Your task to perform on an android device: find photos in the google photos app Image 0: 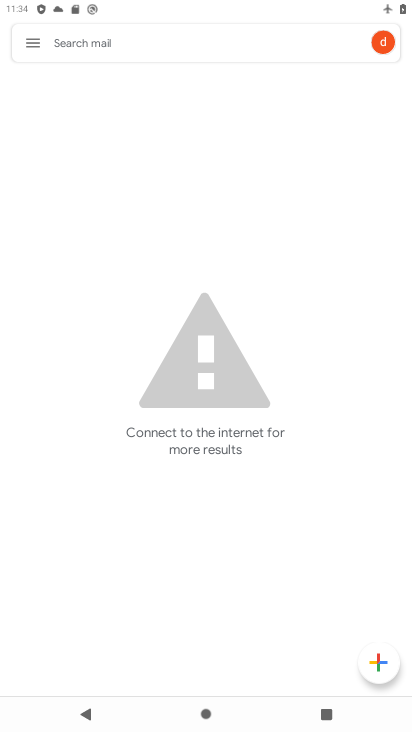
Step 0: press home button
Your task to perform on an android device: find photos in the google photos app Image 1: 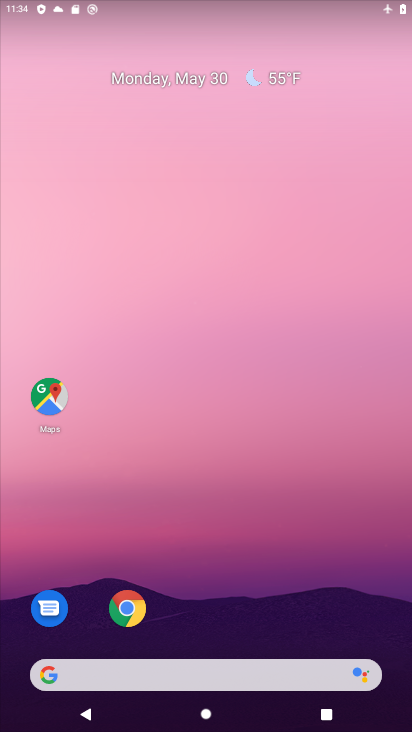
Step 1: drag from (314, 518) to (325, 3)
Your task to perform on an android device: find photos in the google photos app Image 2: 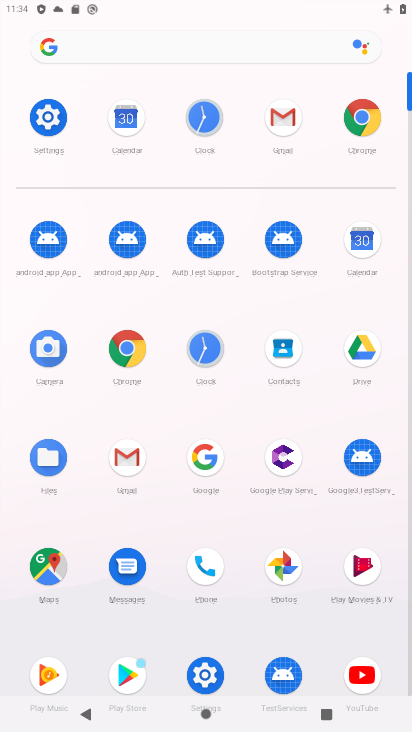
Step 2: click (275, 572)
Your task to perform on an android device: find photos in the google photos app Image 3: 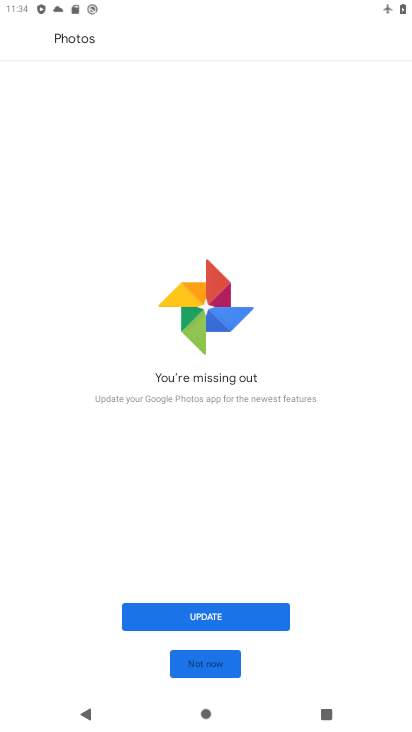
Step 3: click (203, 653)
Your task to perform on an android device: find photos in the google photos app Image 4: 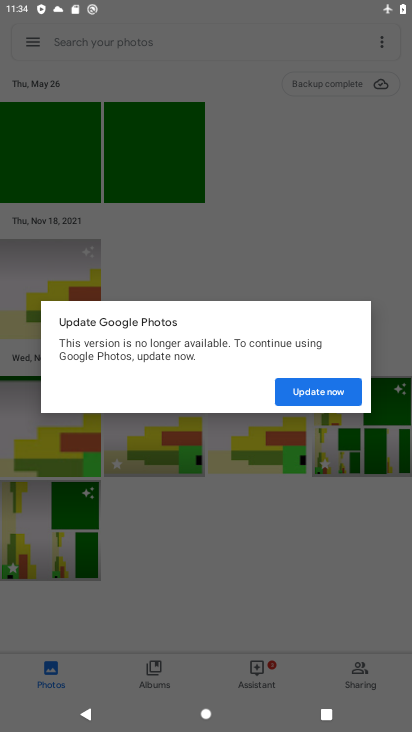
Step 4: click (300, 397)
Your task to perform on an android device: find photos in the google photos app Image 5: 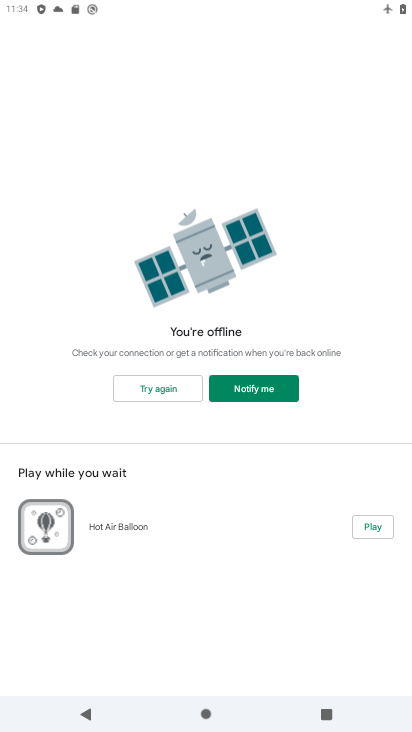
Step 5: press back button
Your task to perform on an android device: find photos in the google photos app Image 6: 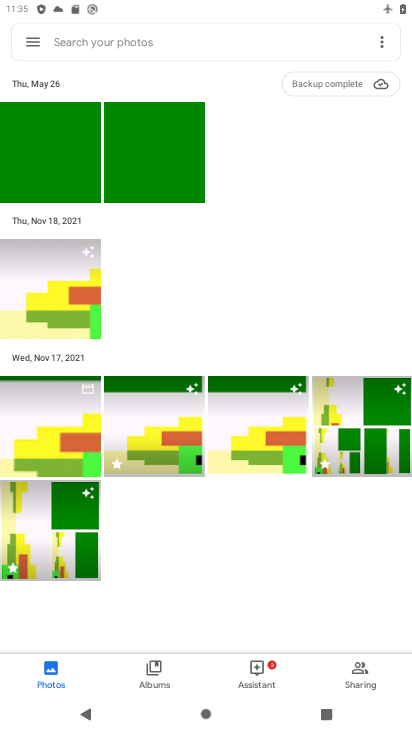
Step 6: click (49, 673)
Your task to perform on an android device: find photos in the google photos app Image 7: 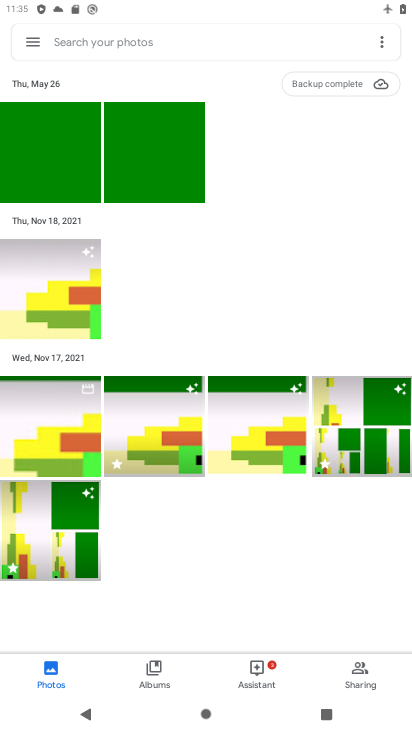
Step 7: click (49, 673)
Your task to perform on an android device: find photos in the google photos app Image 8: 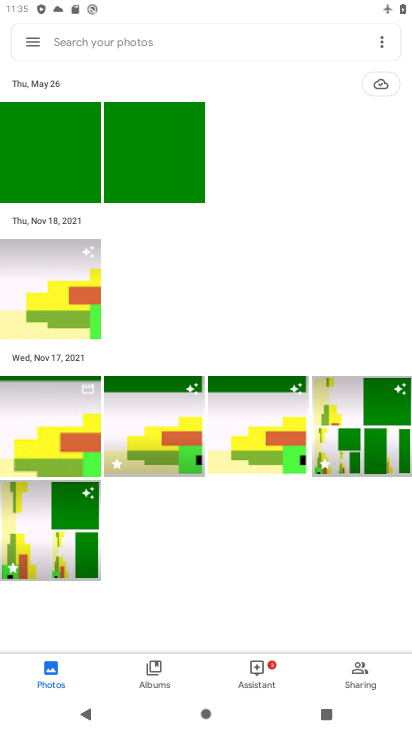
Step 8: task complete